Your task to perform on an android device: Open Youtube and go to the subscriptions tab Image 0: 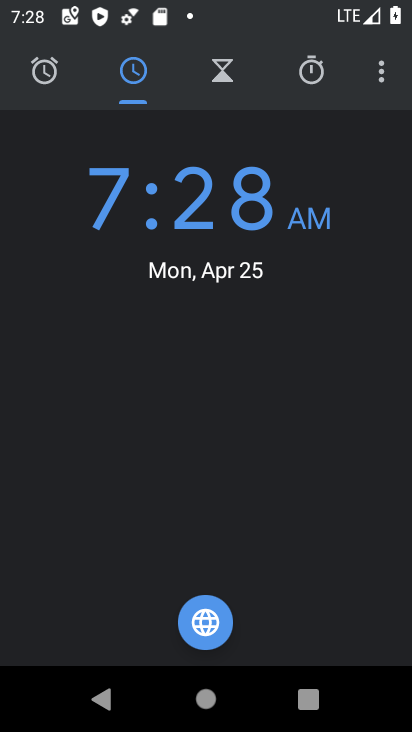
Step 0: press home button
Your task to perform on an android device: Open Youtube and go to the subscriptions tab Image 1: 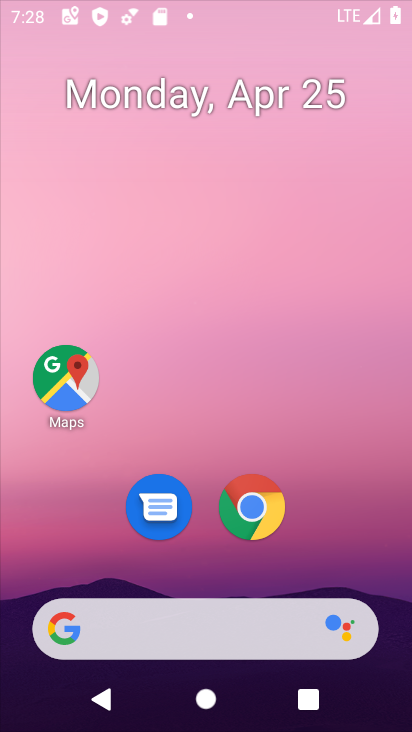
Step 1: click (382, 725)
Your task to perform on an android device: Open Youtube and go to the subscriptions tab Image 2: 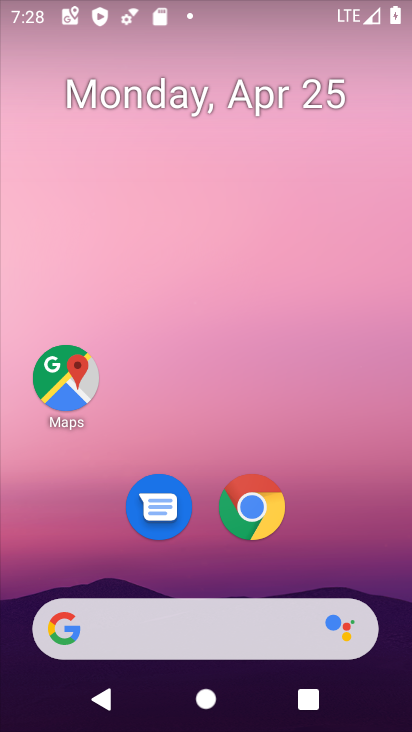
Step 2: drag from (303, 559) to (227, 75)
Your task to perform on an android device: Open Youtube and go to the subscriptions tab Image 3: 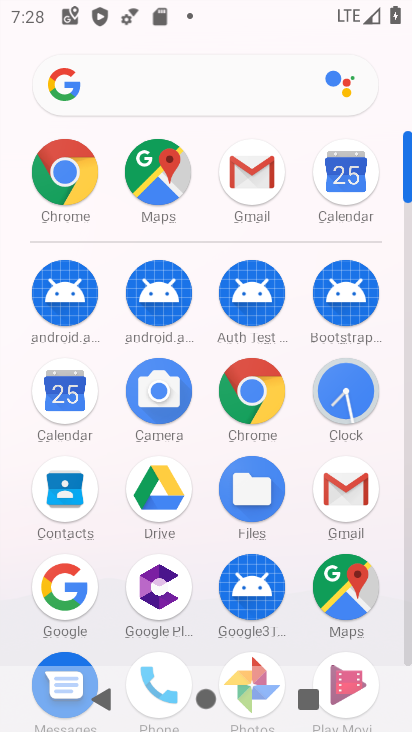
Step 3: click (410, 640)
Your task to perform on an android device: Open Youtube and go to the subscriptions tab Image 4: 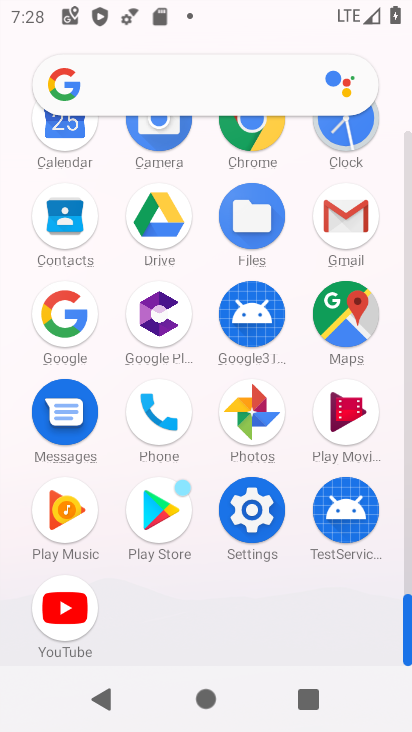
Step 4: click (65, 613)
Your task to perform on an android device: Open Youtube and go to the subscriptions tab Image 5: 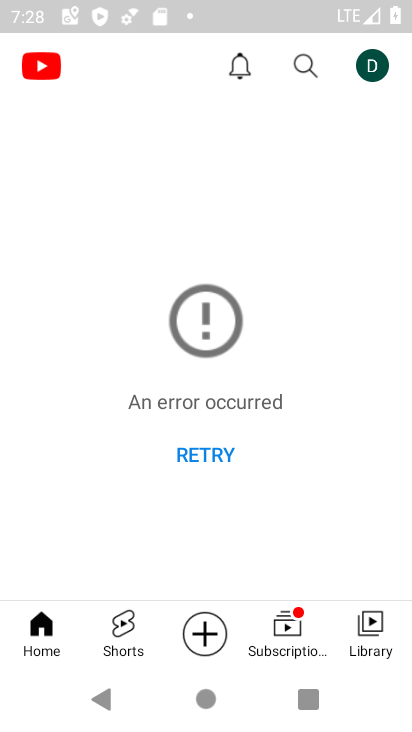
Step 5: task complete